Your task to perform on an android device: Is it going to rain this weekend? Image 0: 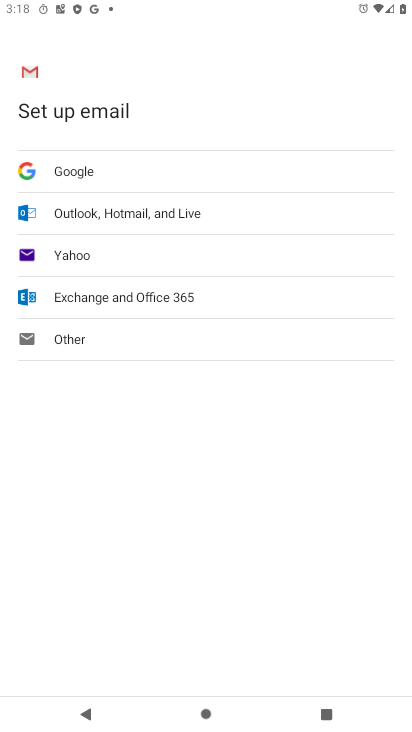
Step 0: press home button
Your task to perform on an android device: Is it going to rain this weekend? Image 1: 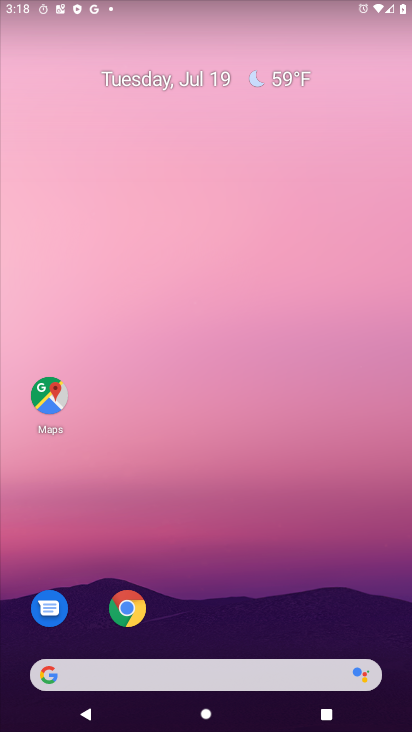
Step 1: click (124, 604)
Your task to perform on an android device: Is it going to rain this weekend? Image 2: 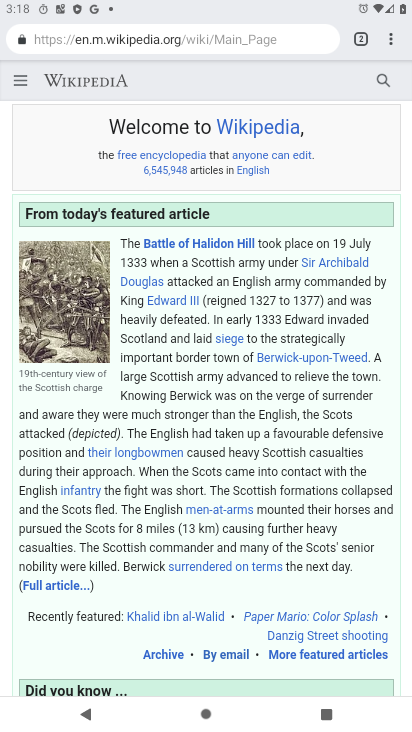
Step 2: click (249, 42)
Your task to perform on an android device: Is it going to rain this weekend? Image 3: 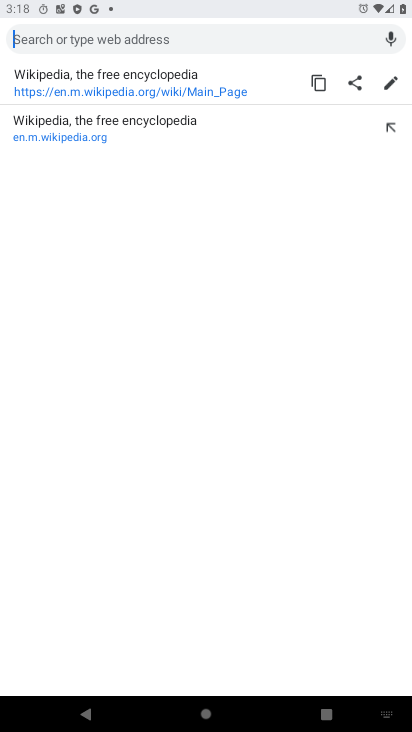
Step 3: type "Is it going to rain this weekend?"
Your task to perform on an android device: Is it going to rain this weekend? Image 4: 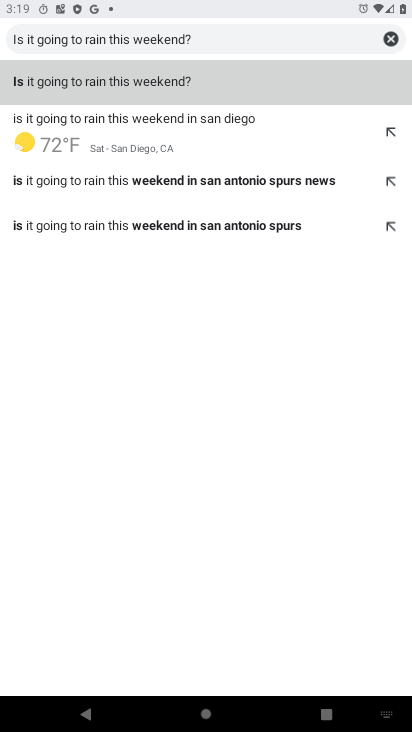
Step 4: click (221, 78)
Your task to perform on an android device: Is it going to rain this weekend? Image 5: 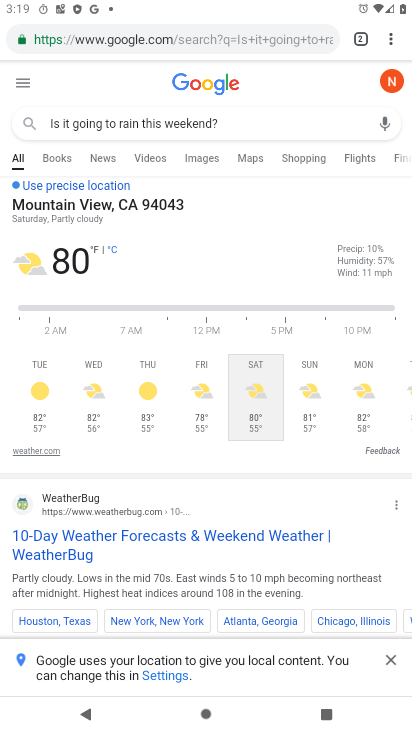
Step 5: task complete